Your task to perform on an android device: What is the recent news? Image 0: 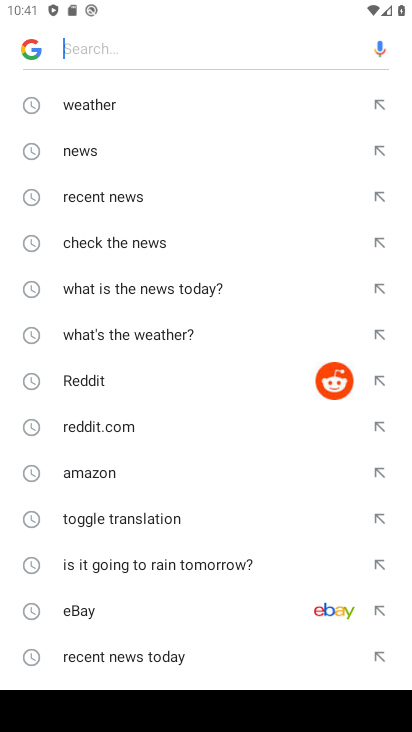
Step 0: click (111, 195)
Your task to perform on an android device: What is the recent news? Image 1: 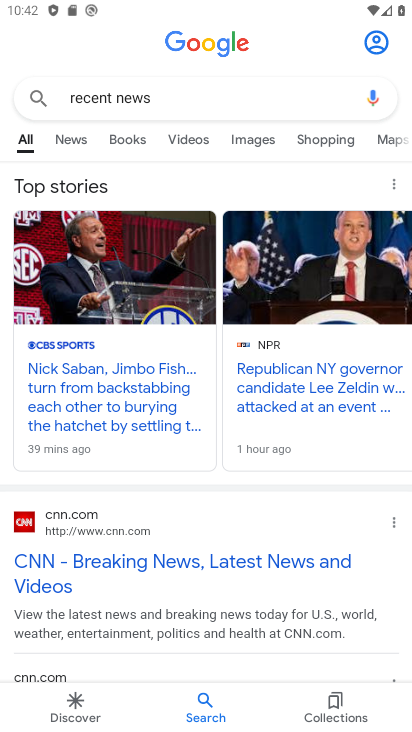
Step 1: task complete